Your task to perform on an android device: turn on the 24-hour format for clock Image 0: 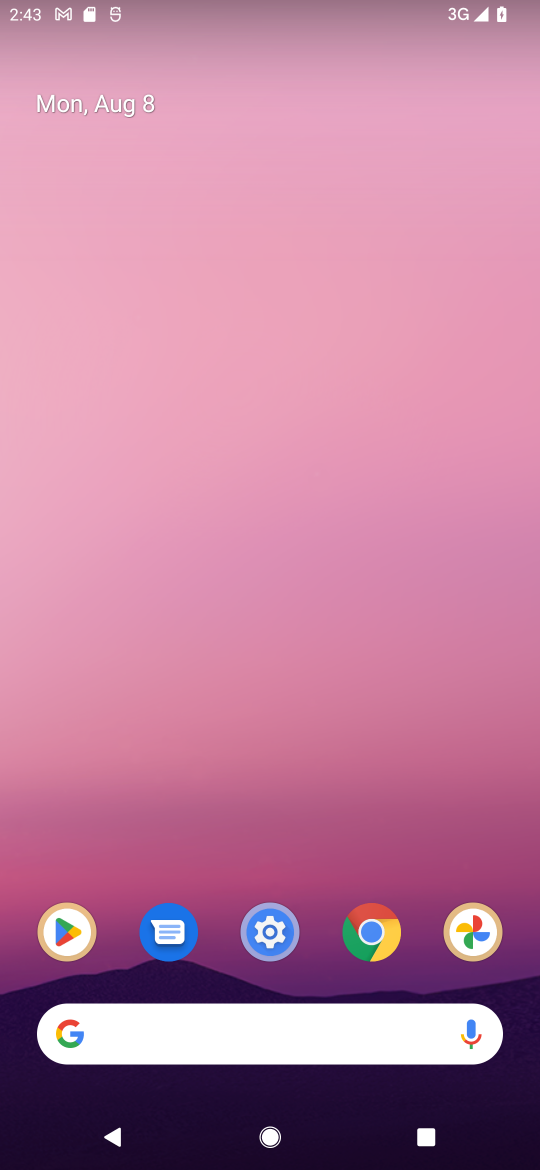
Step 0: drag from (256, 1009) to (420, 123)
Your task to perform on an android device: turn on the 24-hour format for clock Image 1: 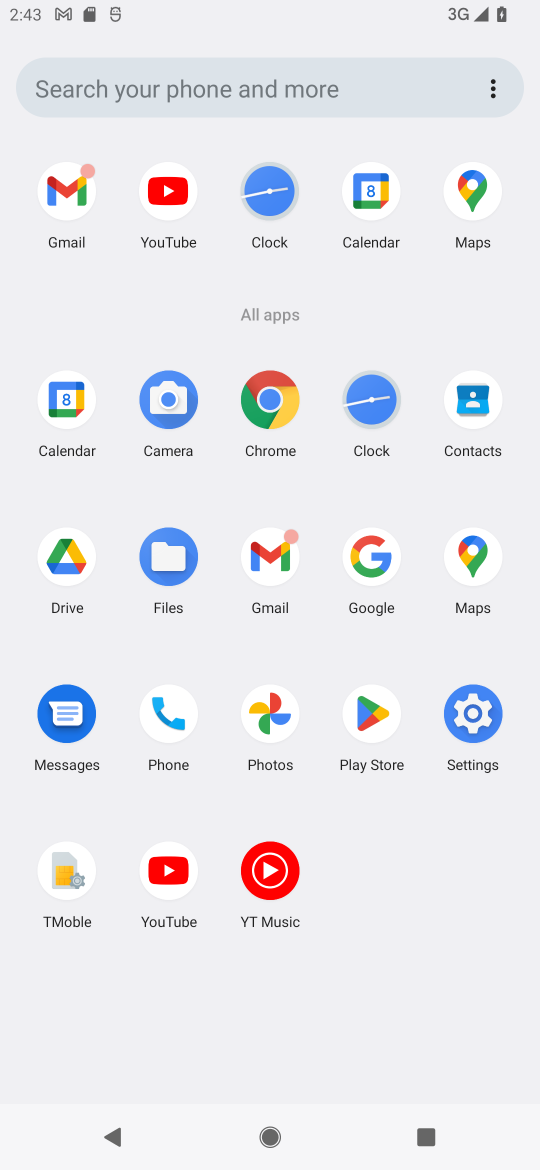
Step 1: click (362, 398)
Your task to perform on an android device: turn on the 24-hour format for clock Image 2: 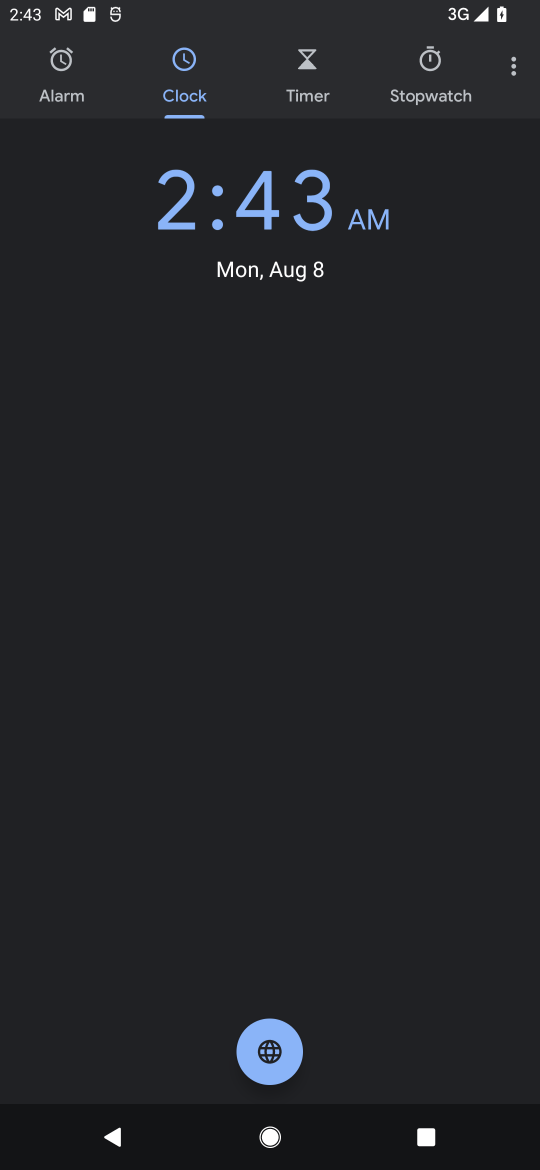
Step 2: click (512, 63)
Your task to perform on an android device: turn on the 24-hour format for clock Image 3: 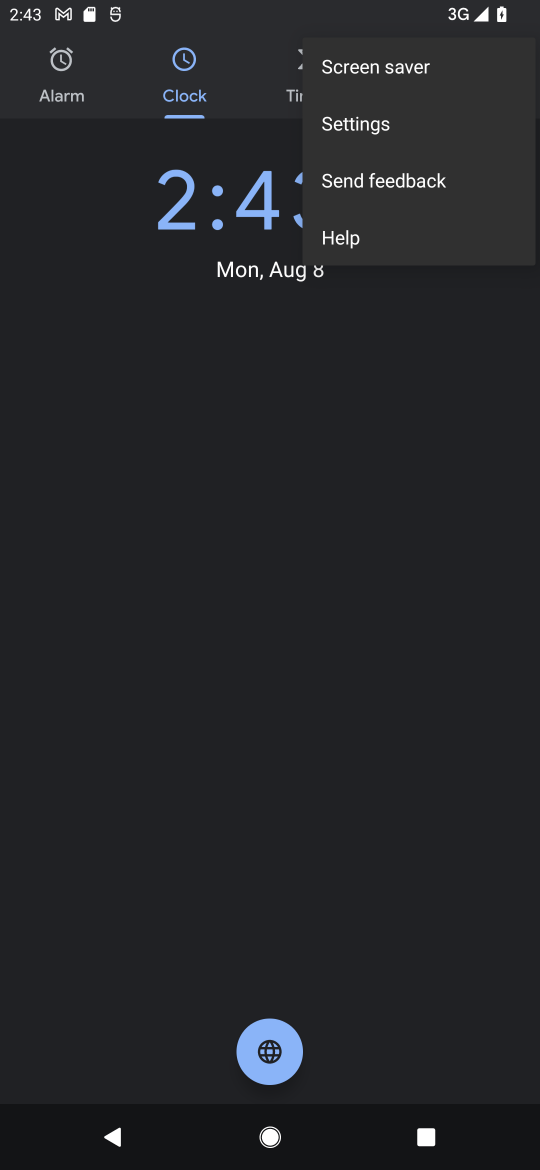
Step 3: click (335, 130)
Your task to perform on an android device: turn on the 24-hour format for clock Image 4: 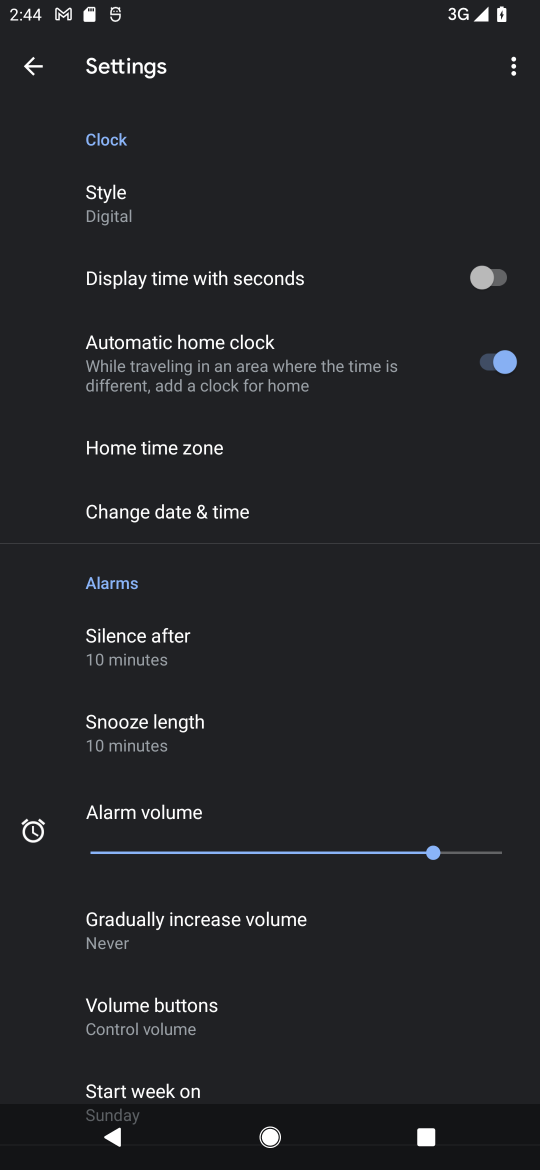
Step 4: click (197, 520)
Your task to perform on an android device: turn on the 24-hour format for clock Image 5: 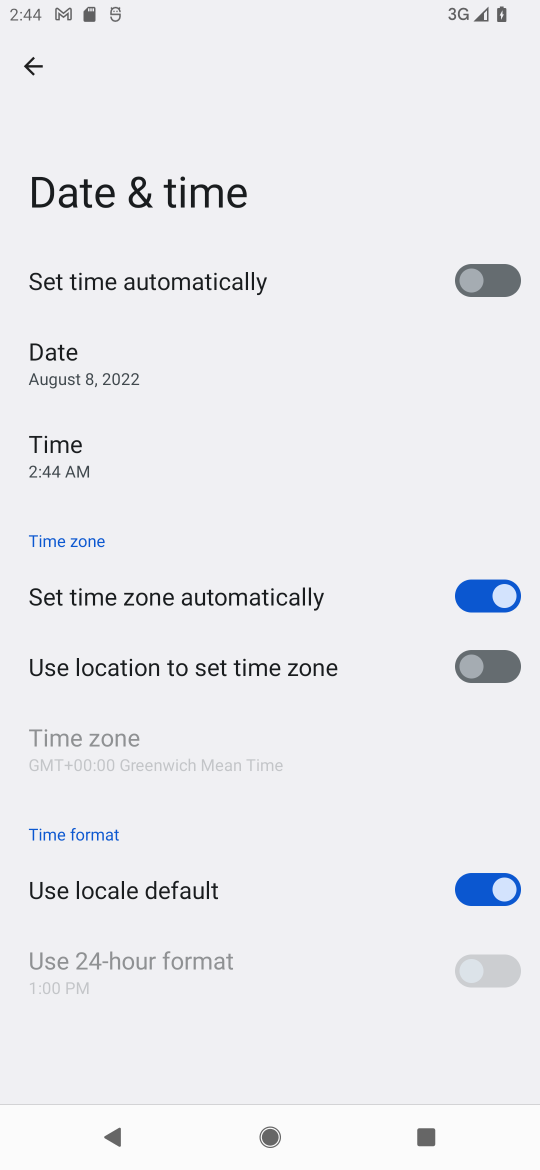
Step 5: drag from (235, 868) to (333, 380)
Your task to perform on an android device: turn on the 24-hour format for clock Image 6: 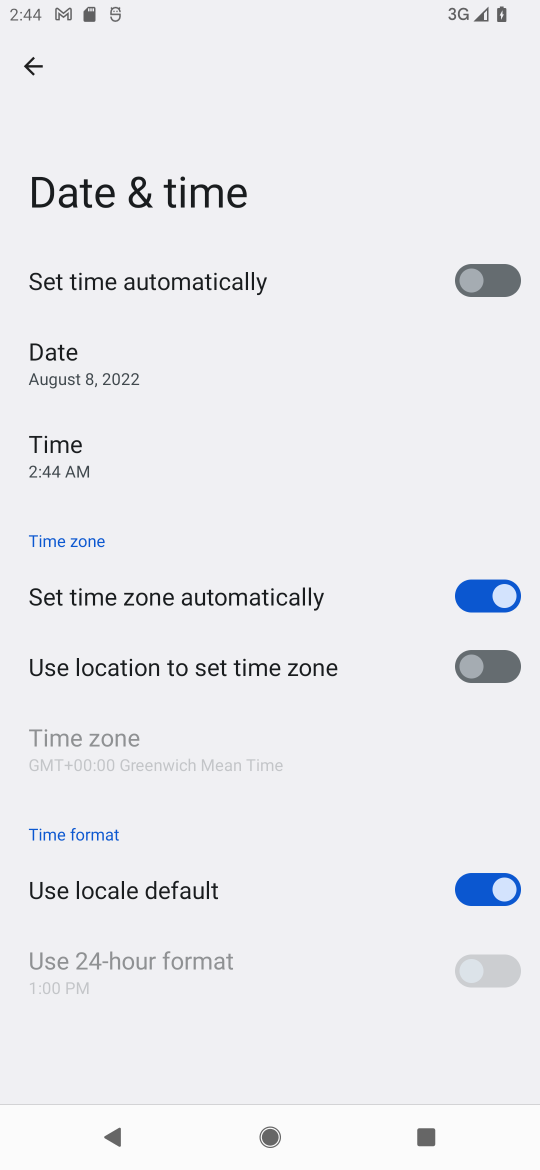
Step 6: click (507, 876)
Your task to perform on an android device: turn on the 24-hour format for clock Image 7: 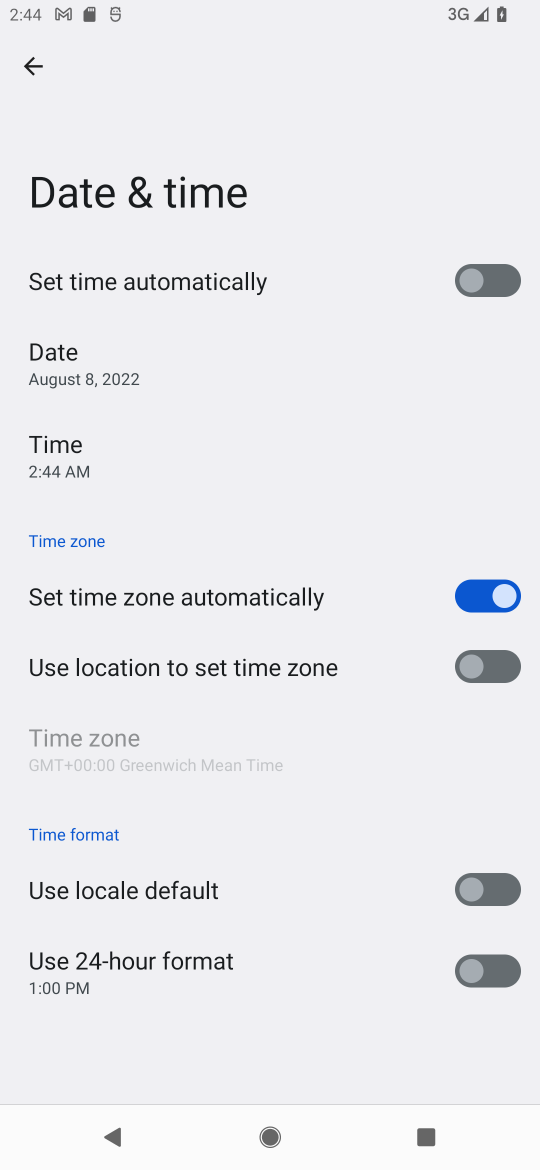
Step 7: click (492, 979)
Your task to perform on an android device: turn on the 24-hour format for clock Image 8: 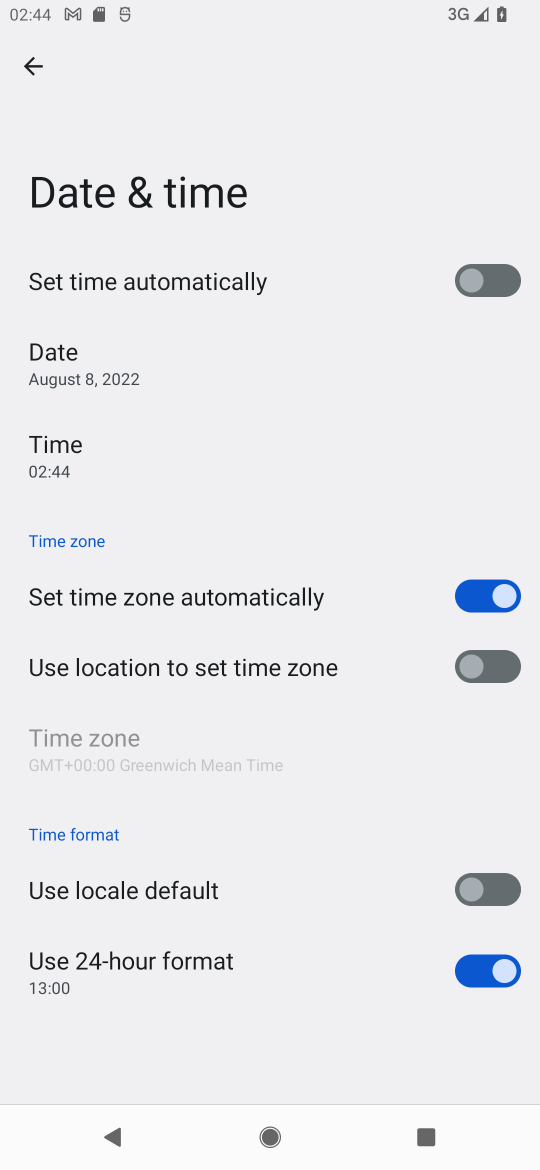
Step 8: task complete